Your task to perform on an android device: turn on sleep mode Image 0: 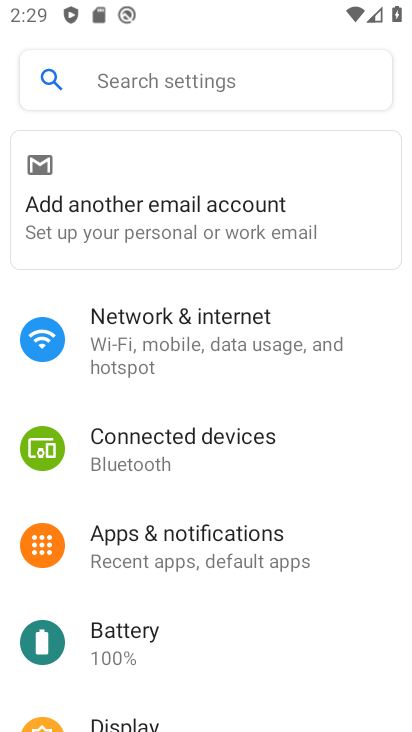
Step 0: drag from (253, 609) to (289, 321)
Your task to perform on an android device: turn on sleep mode Image 1: 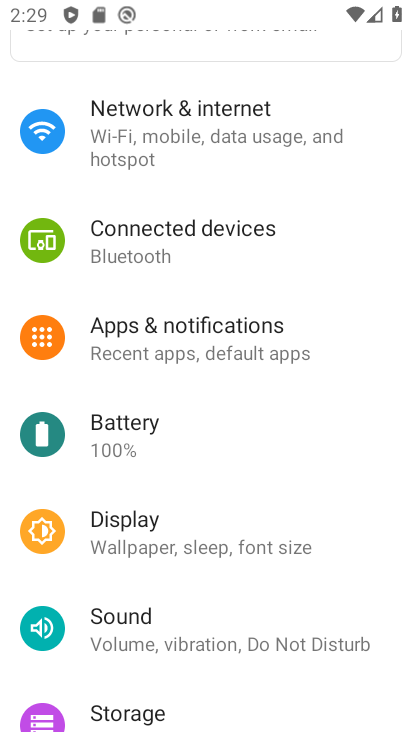
Step 1: click (244, 539)
Your task to perform on an android device: turn on sleep mode Image 2: 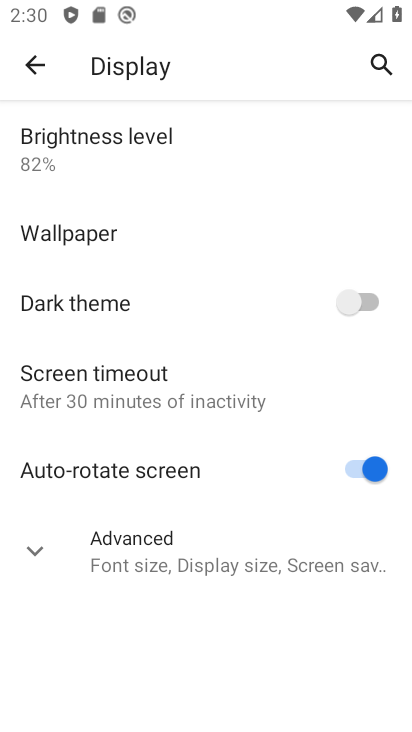
Step 2: click (40, 550)
Your task to perform on an android device: turn on sleep mode Image 3: 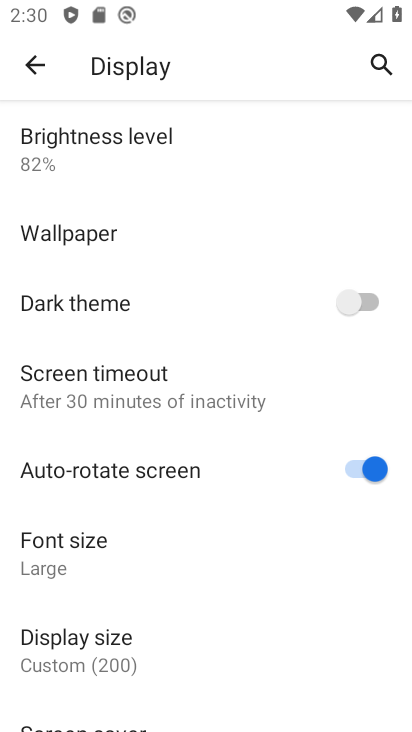
Step 3: task complete